Your task to perform on an android device: change notifications settings Image 0: 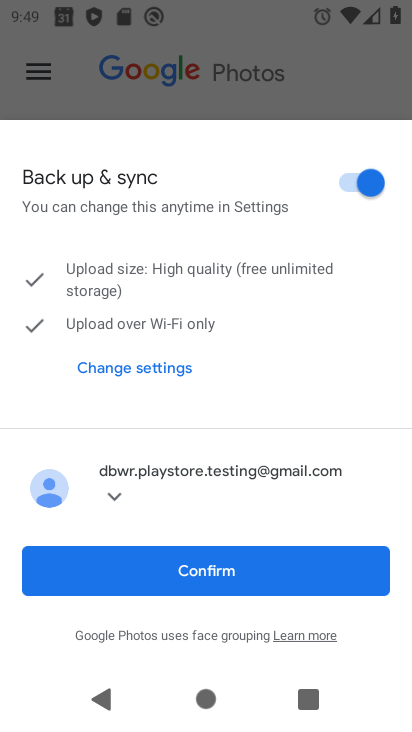
Step 0: press home button
Your task to perform on an android device: change notifications settings Image 1: 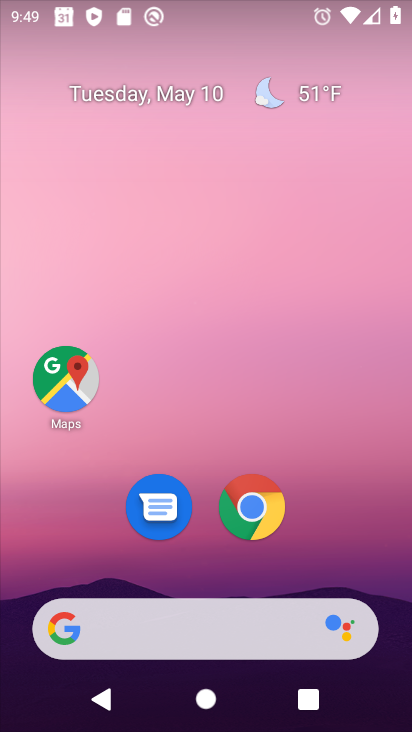
Step 1: drag from (208, 578) to (243, 6)
Your task to perform on an android device: change notifications settings Image 2: 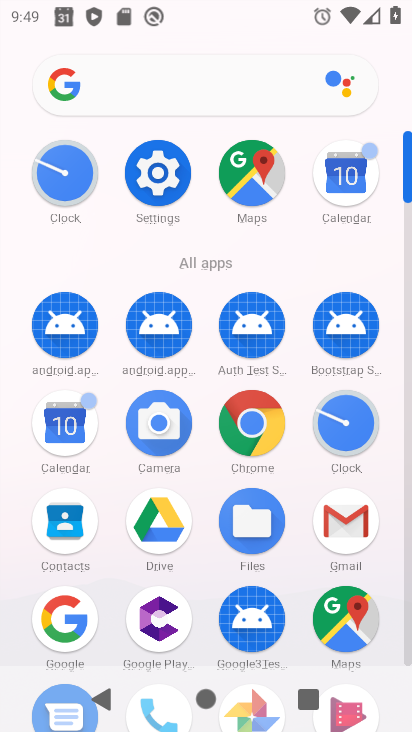
Step 2: click (154, 196)
Your task to perform on an android device: change notifications settings Image 3: 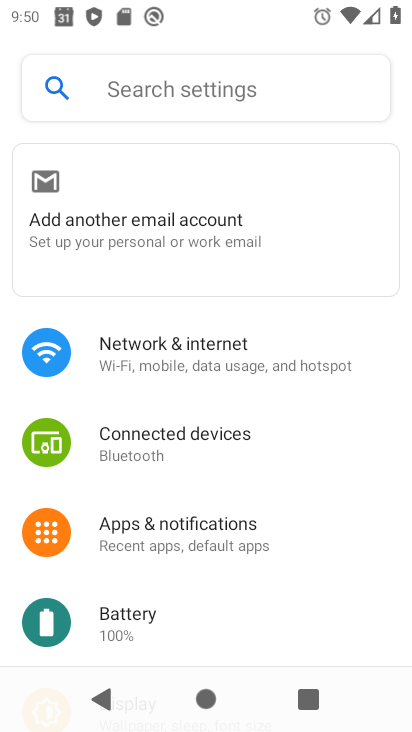
Step 3: click (140, 525)
Your task to perform on an android device: change notifications settings Image 4: 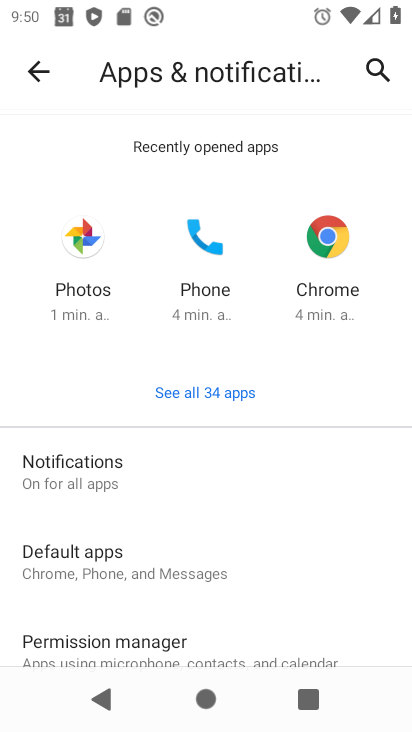
Step 4: click (163, 469)
Your task to perform on an android device: change notifications settings Image 5: 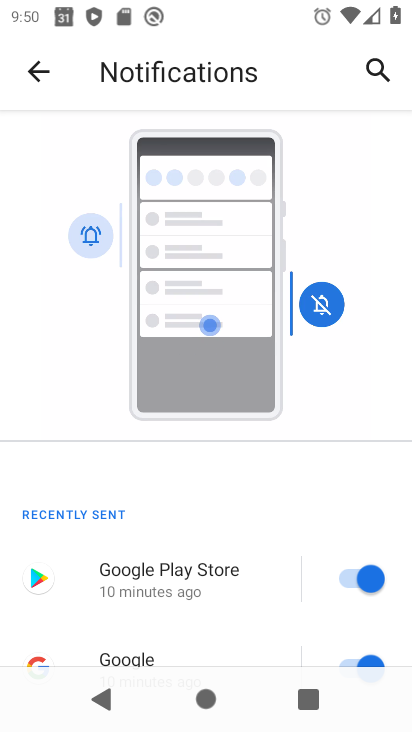
Step 5: drag from (134, 595) to (216, 91)
Your task to perform on an android device: change notifications settings Image 6: 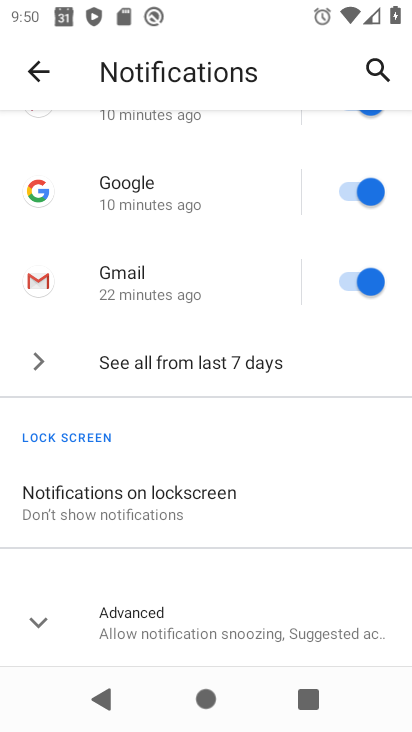
Step 6: click (160, 627)
Your task to perform on an android device: change notifications settings Image 7: 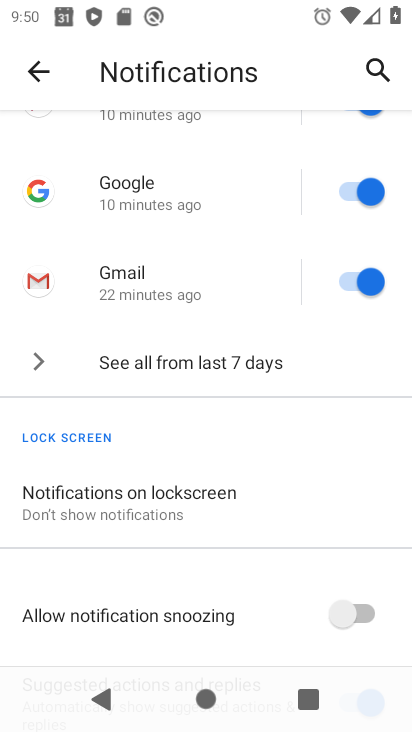
Step 7: drag from (156, 621) to (337, 116)
Your task to perform on an android device: change notifications settings Image 8: 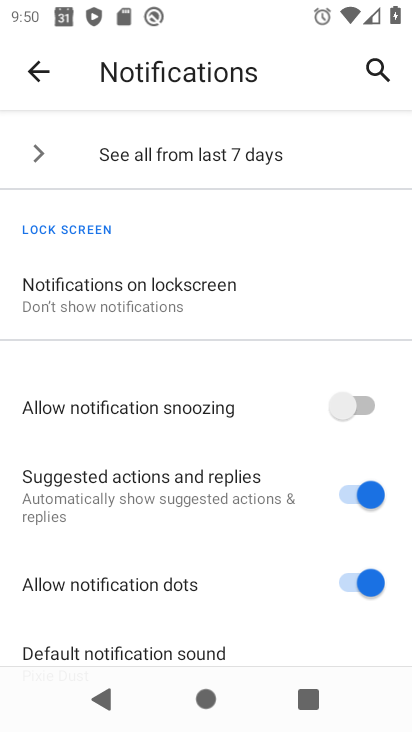
Step 8: click (181, 297)
Your task to perform on an android device: change notifications settings Image 9: 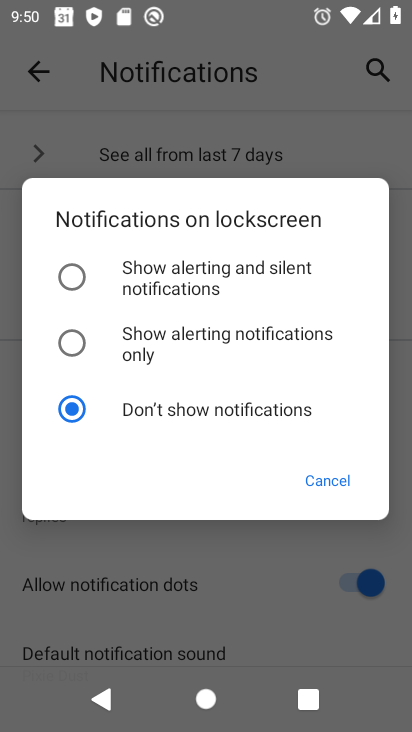
Step 9: click (181, 297)
Your task to perform on an android device: change notifications settings Image 10: 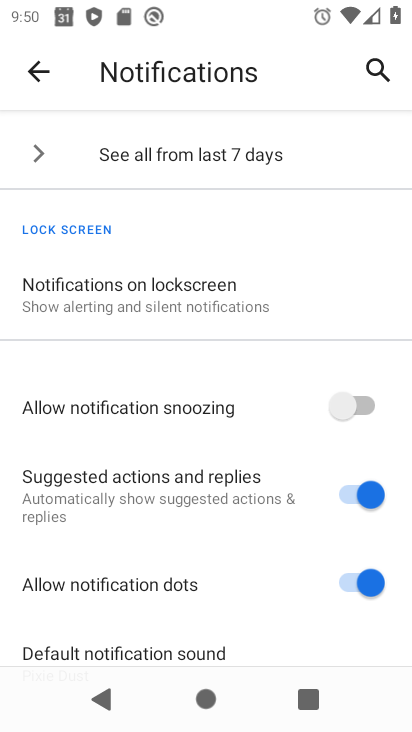
Step 10: click (360, 397)
Your task to perform on an android device: change notifications settings Image 11: 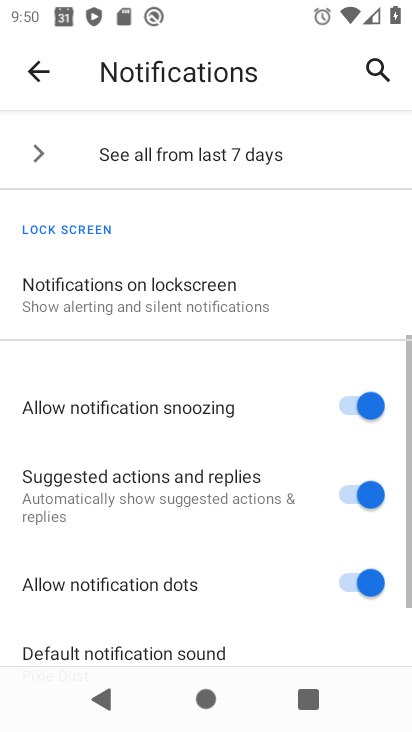
Step 11: click (369, 487)
Your task to perform on an android device: change notifications settings Image 12: 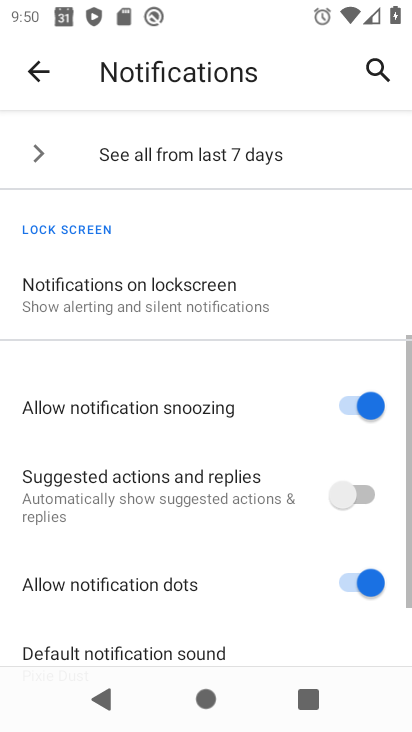
Step 12: click (356, 585)
Your task to perform on an android device: change notifications settings Image 13: 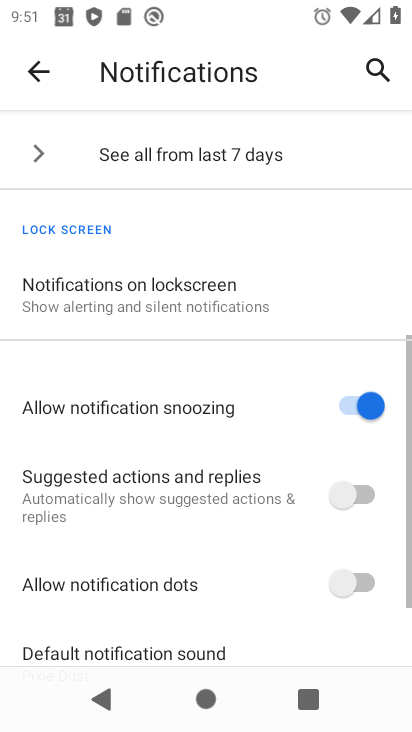
Step 13: task complete